Your task to perform on an android device: What's on my calendar today? Image 0: 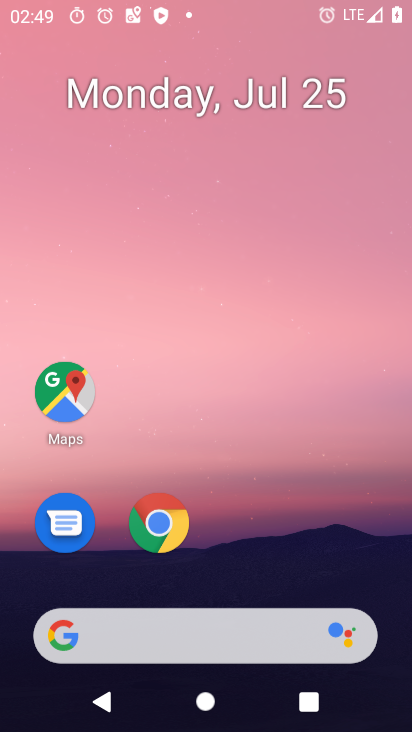
Step 0: press home button
Your task to perform on an android device: What's on my calendar today? Image 1: 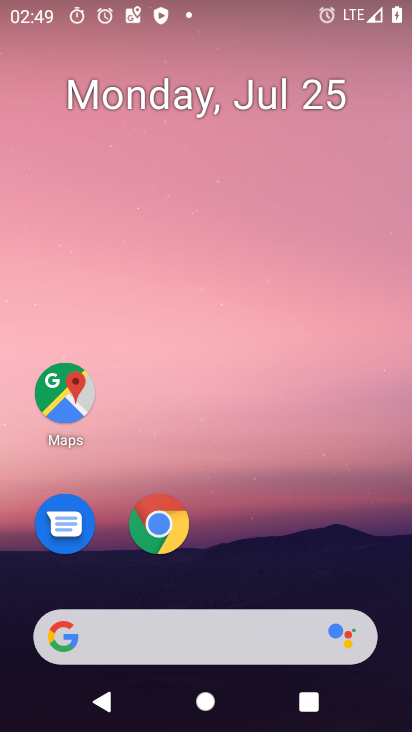
Step 1: drag from (262, 543) to (294, 16)
Your task to perform on an android device: What's on my calendar today? Image 2: 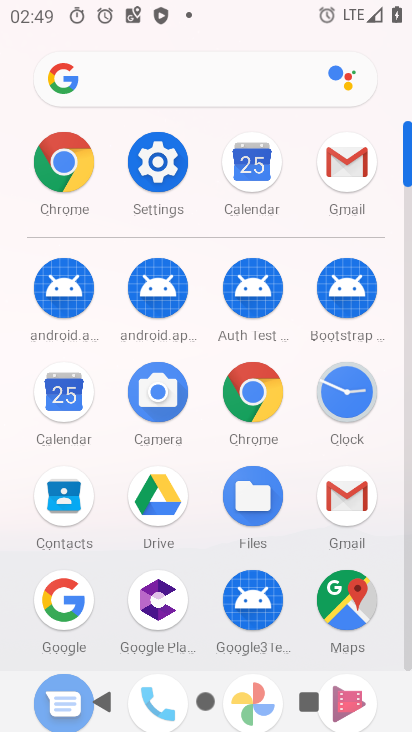
Step 2: click (257, 165)
Your task to perform on an android device: What's on my calendar today? Image 3: 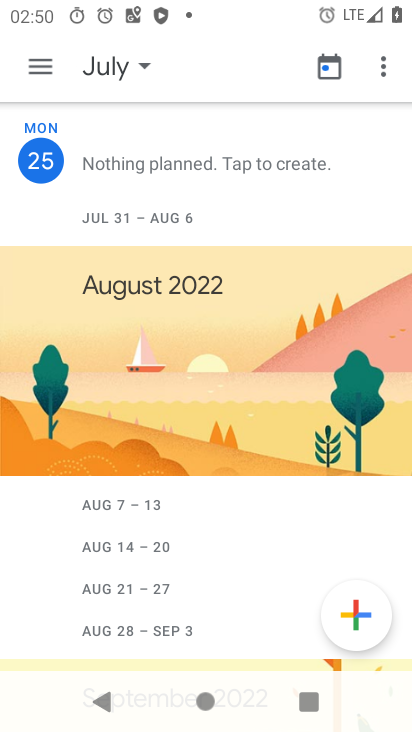
Step 3: click (135, 67)
Your task to perform on an android device: What's on my calendar today? Image 4: 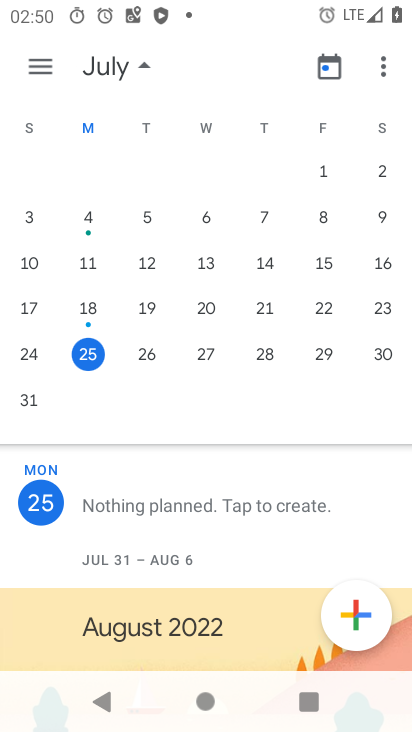
Step 4: click (95, 356)
Your task to perform on an android device: What's on my calendar today? Image 5: 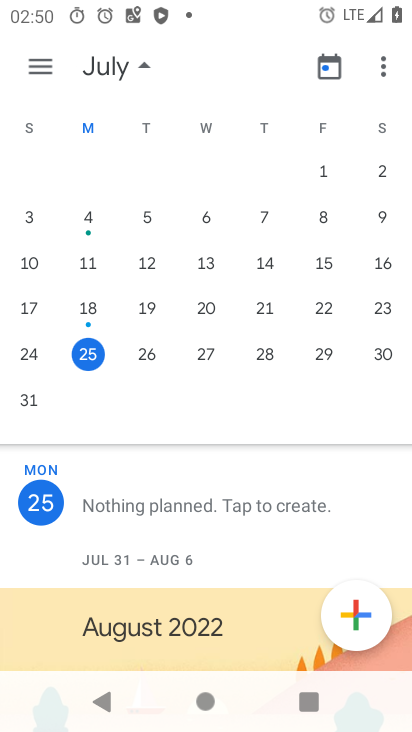
Step 5: task complete